Your task to perform on an android device: Search for seafood restaurants on Google Maps Image 0: 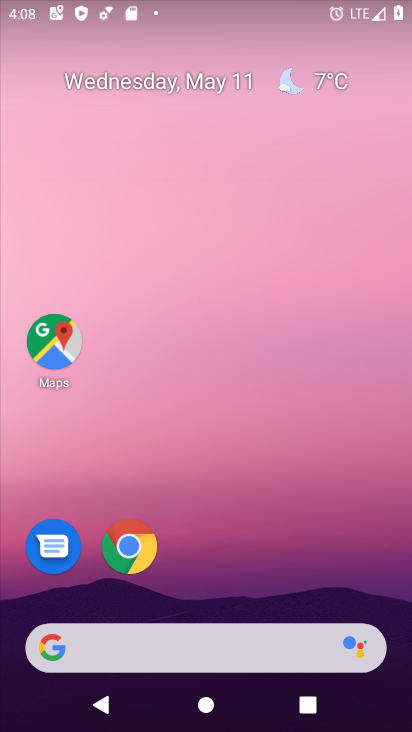
Step 0: drag from (325, 617) to (311, 4)
Your task to perform on an android device: Search for seafood restaurants on Google Maps Image 1: 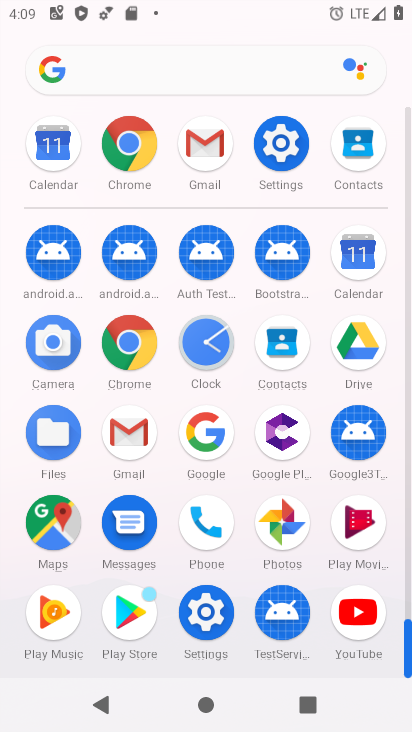
Step 1: click (61, 529)
Your task to perform on an android device: Search for seafood restaurants on Google Maps Image 2: 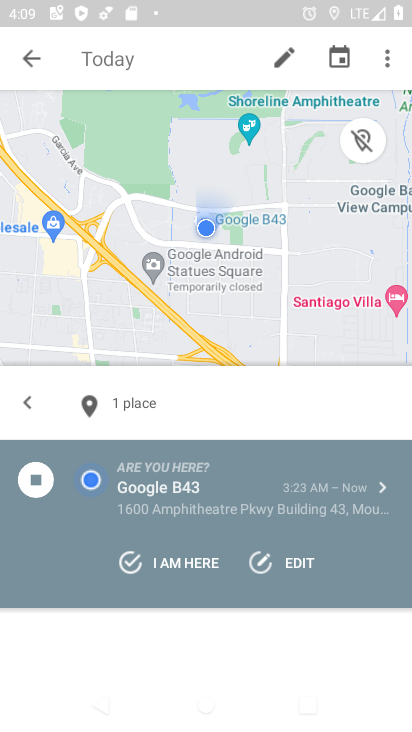
Step 2: press back button
Your task to perform on an android device: Search for seafood restaurants on Google Maps Image 3: 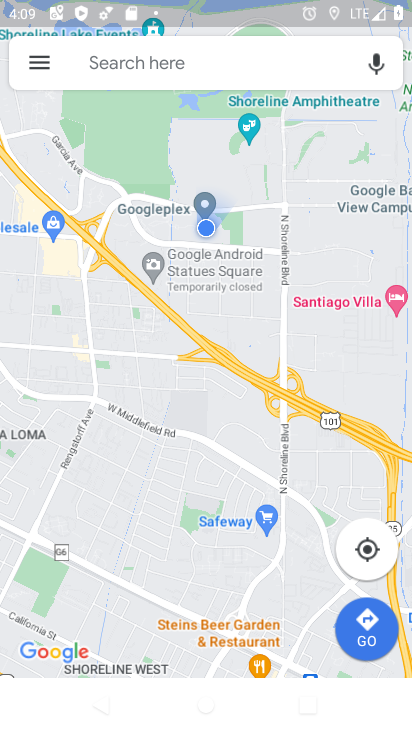
Step 3: click (315, 68)
Your task to perform on an android device: Search for seafood restaurants on Google Maps Image 4: 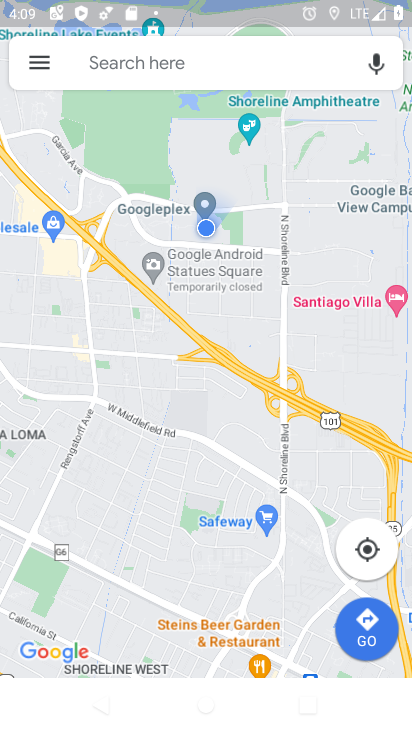
Step 4: click (315, 68)
Your task to perform on an android device: Search for seafood restaurants on Google Maps Image 5: 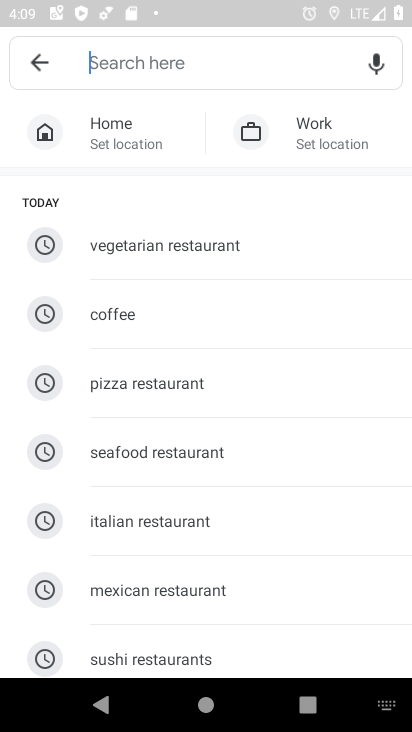
Step 5: click (192, 454)
Your task to perform on an android device: Search for seafood restaurants on Google Maps Image 6: 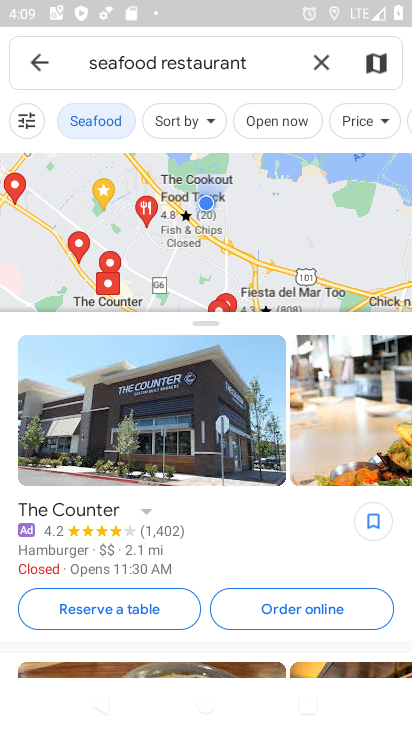
Step 6: task complete